Your task to perform on an android device: toggle notification dots Image 0: 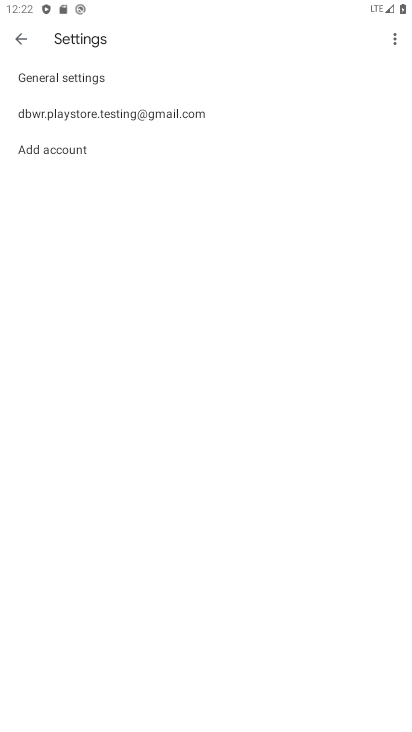
Step 0: press home button
Your task to perform on an android device: toggle notification dots Image 1: 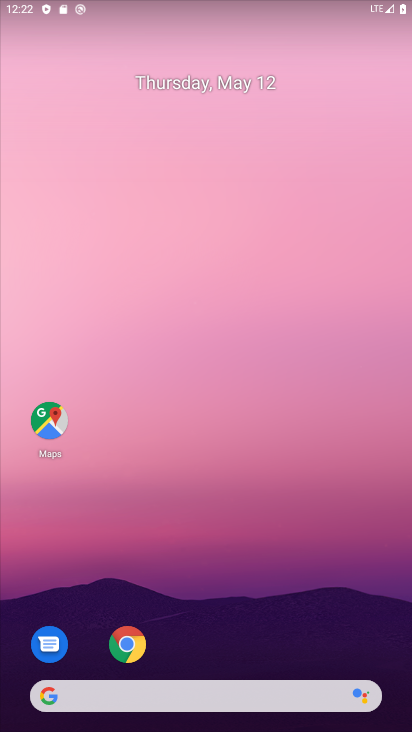
Step 1: drag from (257, 567) to (221, 78)
Your task to perform on an android device: toggle notification dots Image 2: 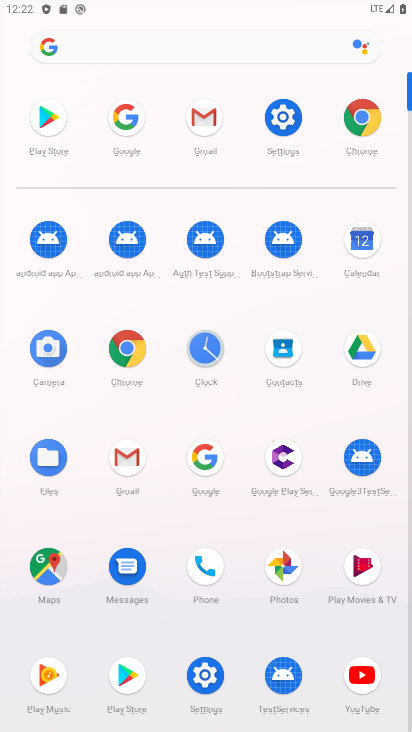
Step 2: click (282, 122)
Your task to perform on an android device: toggle notification dots Image 3: 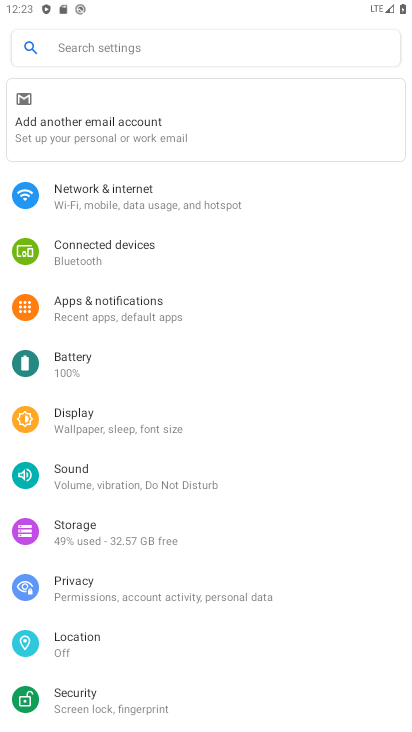
Step 3: click (98, 288)
Your task to perform on an android device: toggle notification dots Image 4: 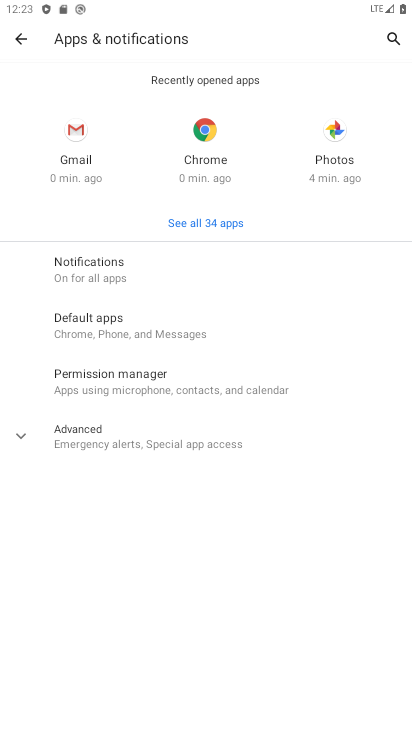
Step 4: click (123, 279)
Your task to perform on an android device: toggle notification dots Image 5: 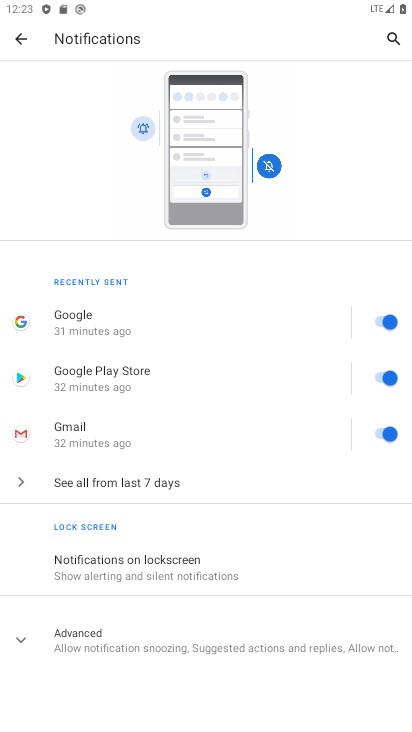
Step 5: click (178, 638)
Your task to perform on an android device: toggle notification dots Image 6: 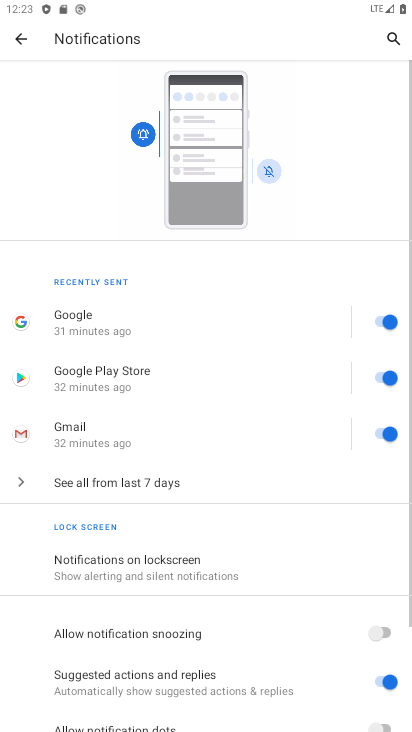
Step 6: drag from (231, 538) to (222, 194)
Your task to perform on an android device: toggle notification dots Image 7: 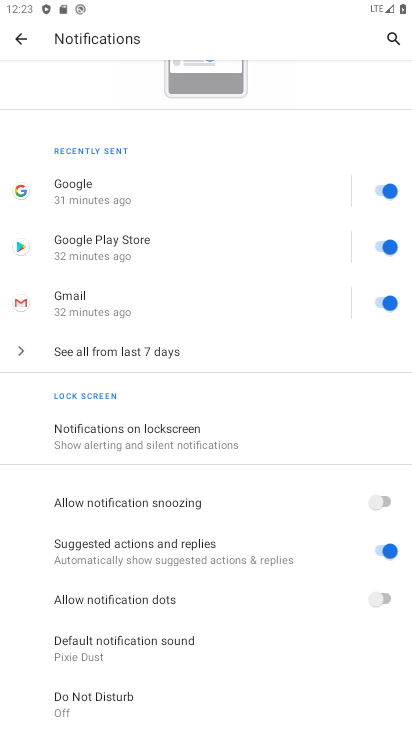
Step 7: click (380, 602)
Your task to perform on an android device: toggle notification dots Image 8: 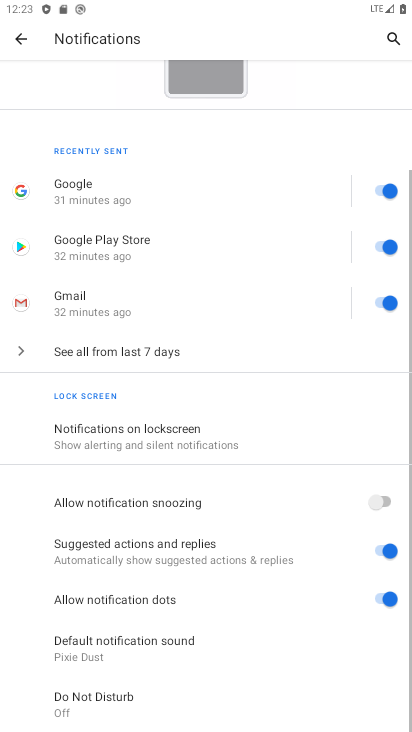
Step 8: task complete